Your task to perform on an android device: read, delete, or share a saved page in the chrome app Image 0: 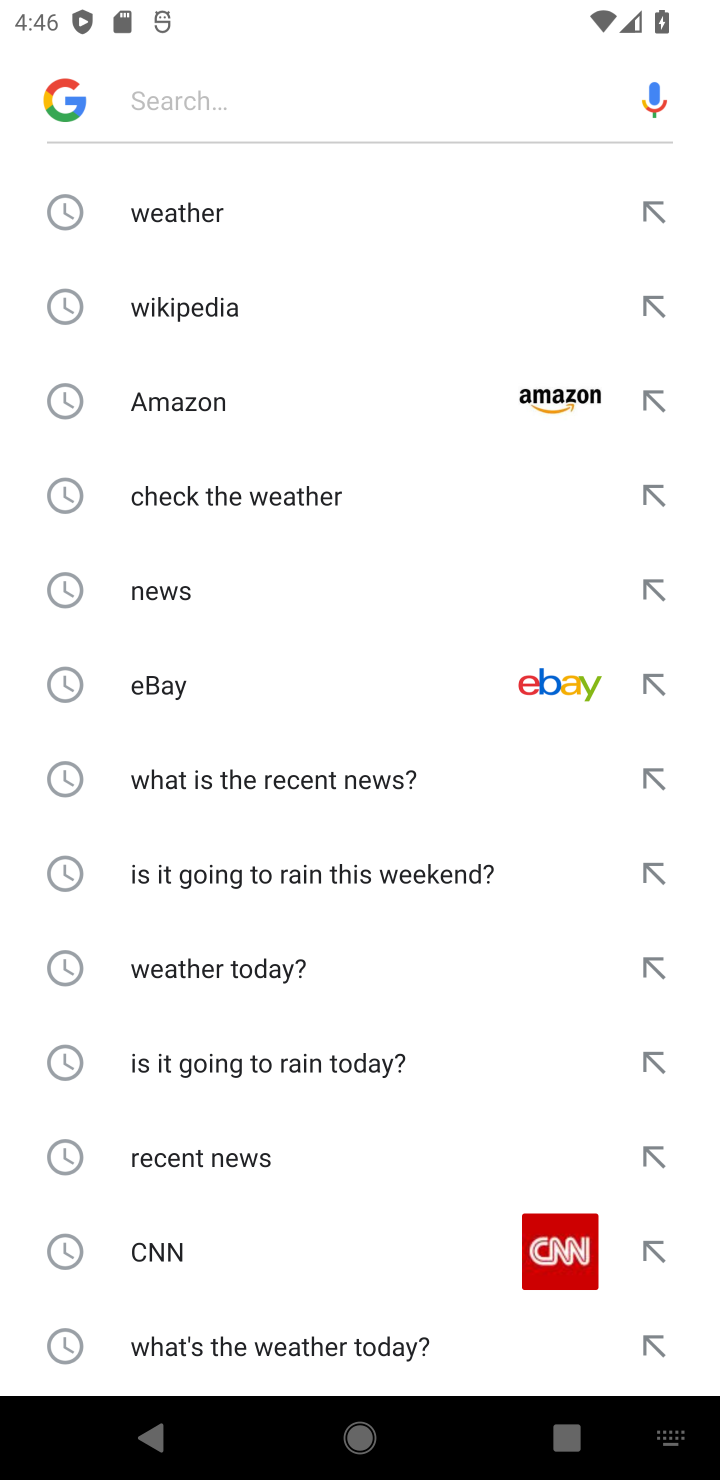
Step 0: press back button
Your task to perform on an android device: read, delete, or share a saved page in the chrome app Image 1: 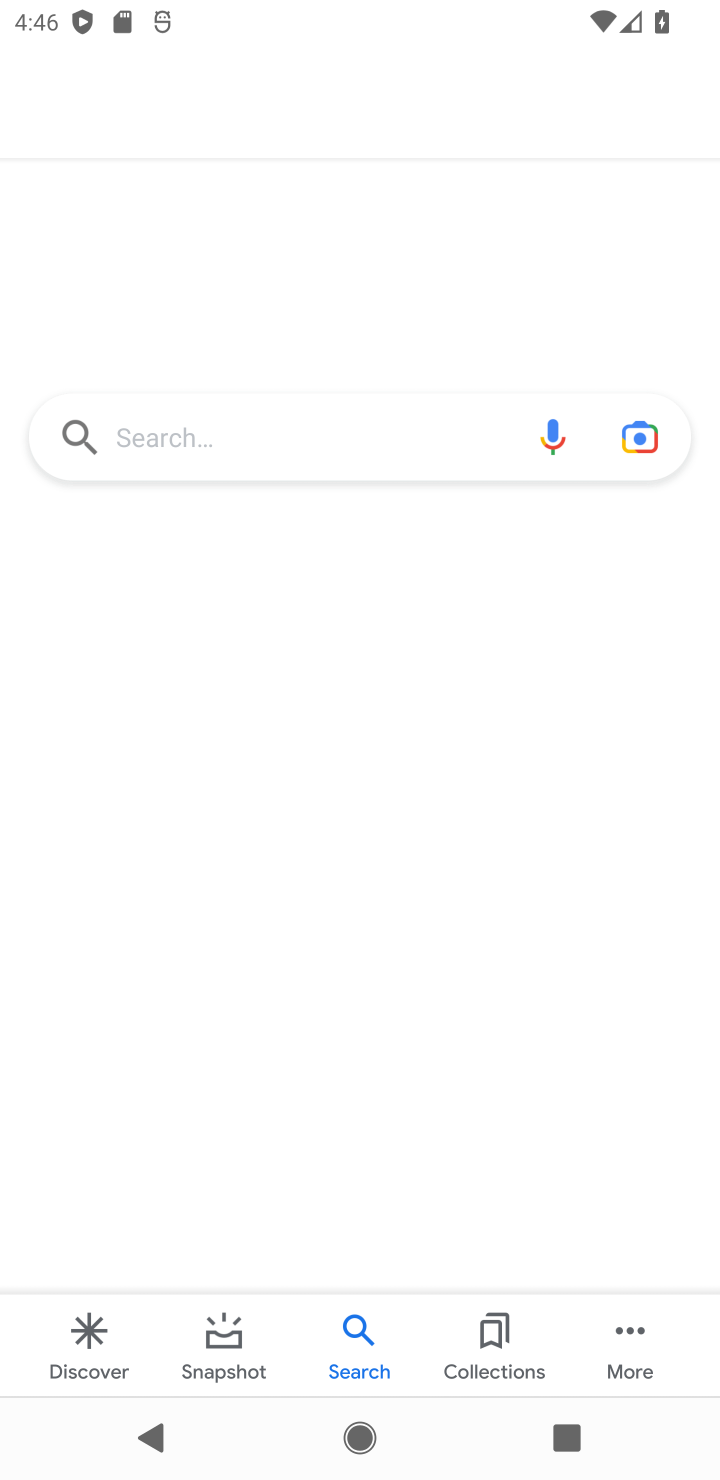
Step 1: drag from (576, 303) to (529, 922)
Your task to perform on an android device: read, delete, or share a saved page in the chrome app Image 2: 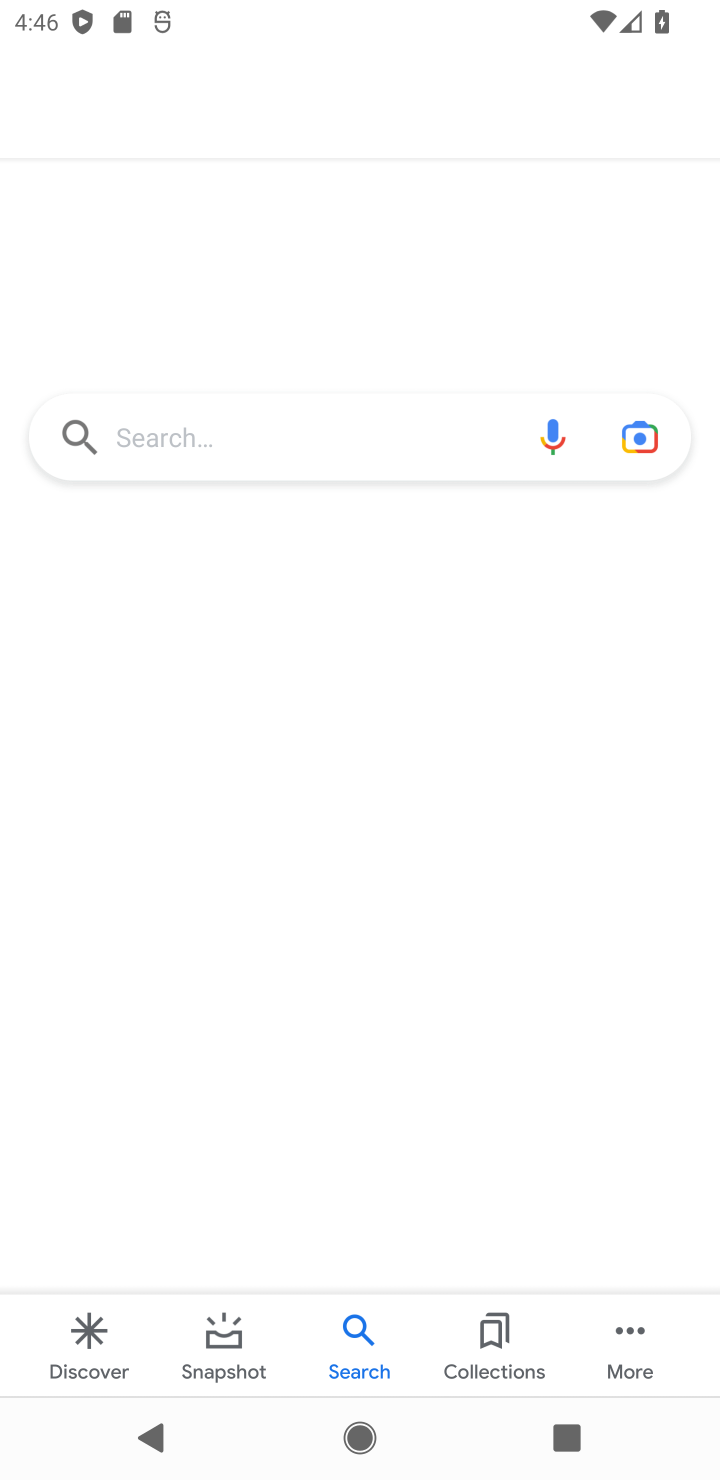
Step 2: press back button
Your task to perform on an android device: read, delete, or share a saved page in the chrome app Image 3: 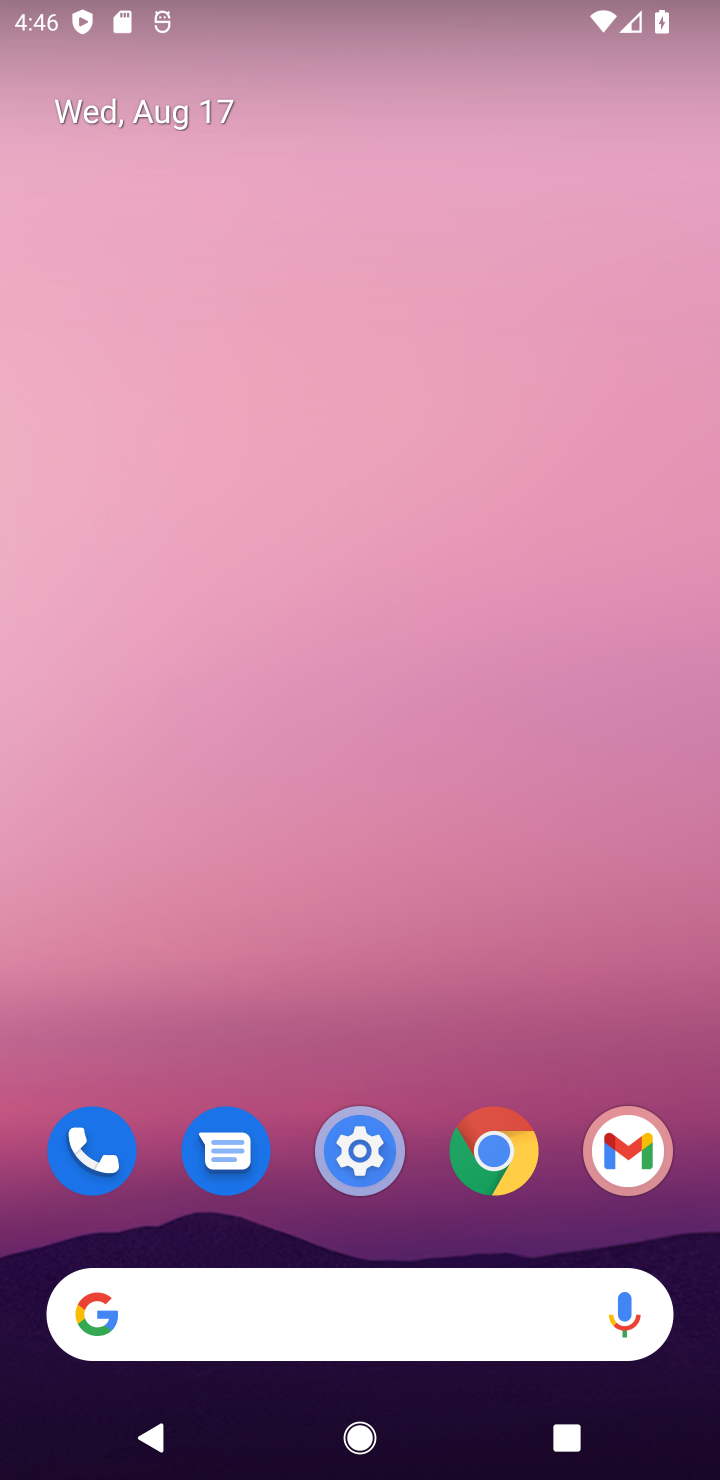
Step 3: click (511, 1146)
Your task to perform on an android device: read, delete, or share a saved page in the chrome app Image 4: 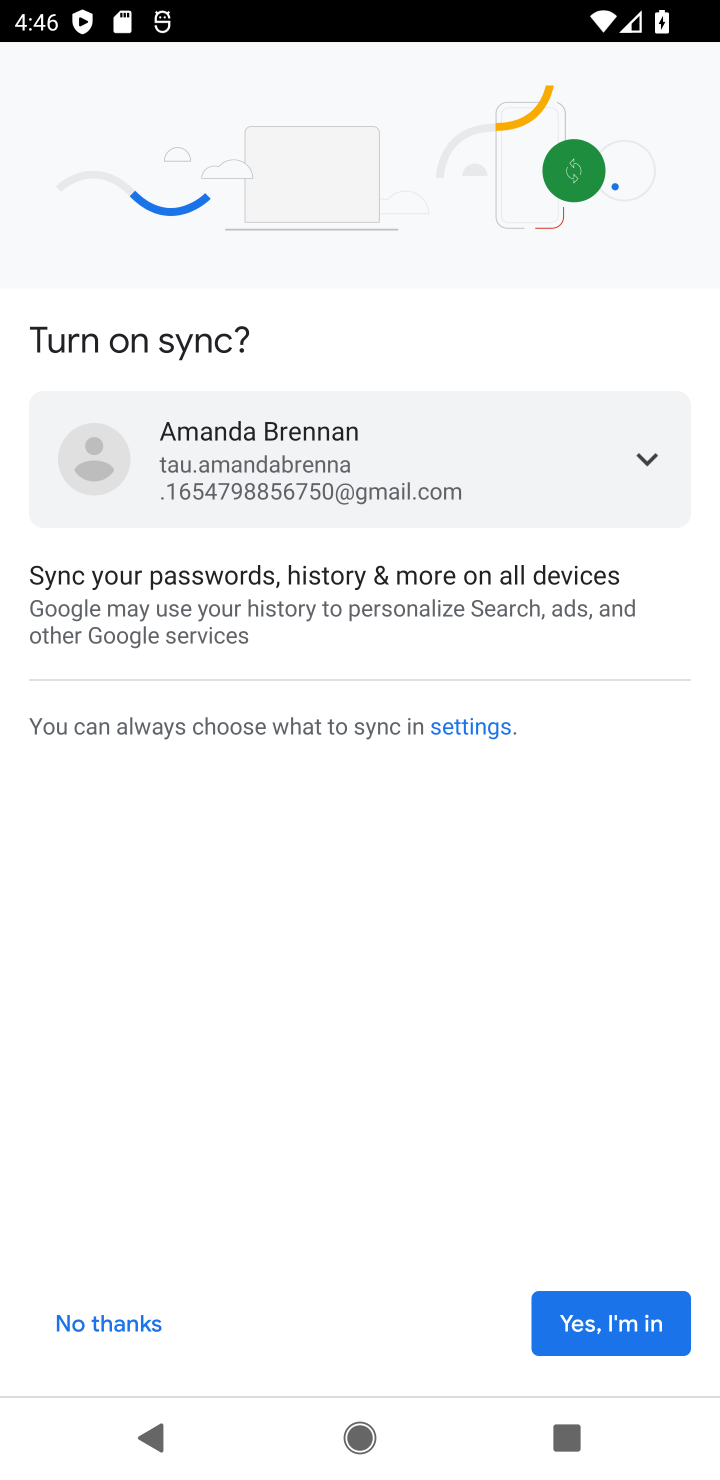
Step 4: click (603, 1293)
Your task to perform on an android device: read, delete, or share a saved page in the chrome app Image 5: 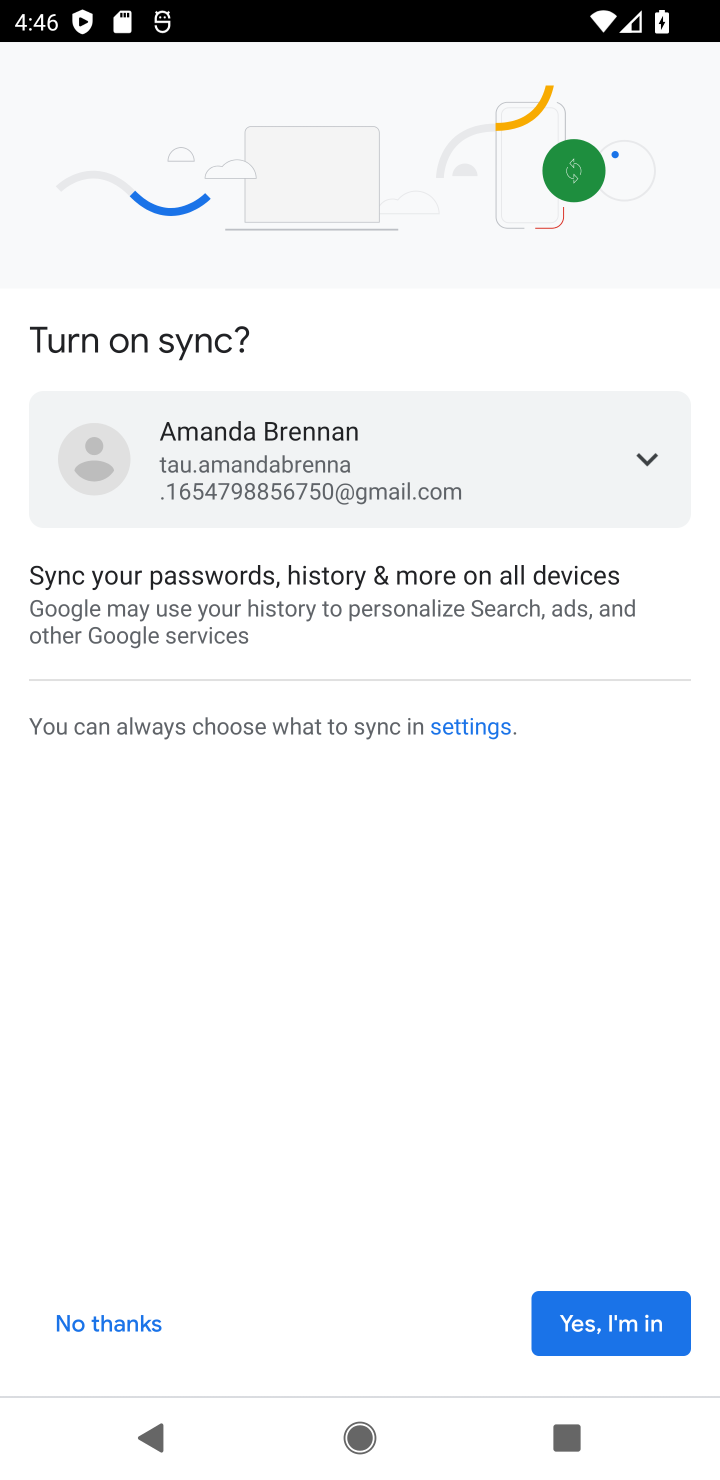
Step 5: click (582, 1313)
Your task to perform on an android device: read, delete, or share a saved page in the chrome app Image 6: 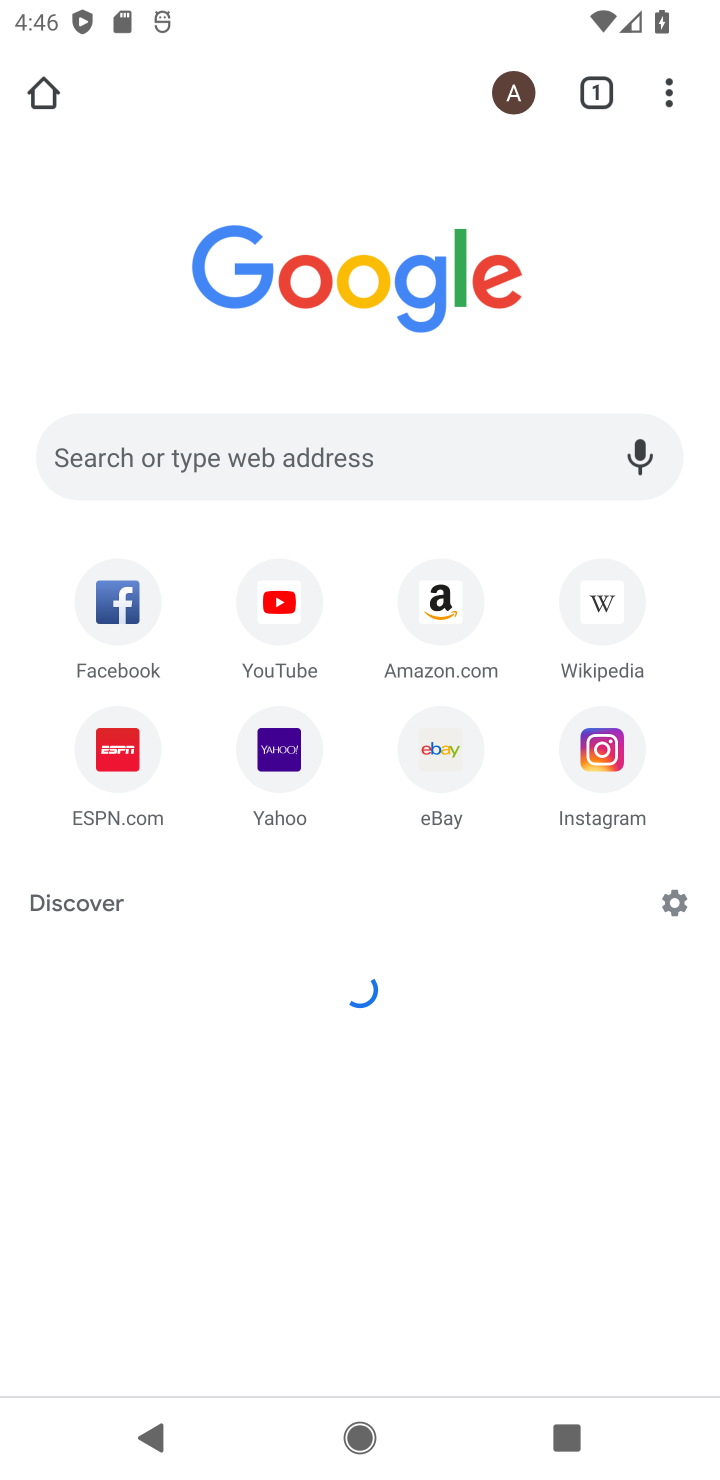
Step 6: click (661, 114)
Your task to perform on an android device: read, delete, or share a saved page in the chrome app Image 7: 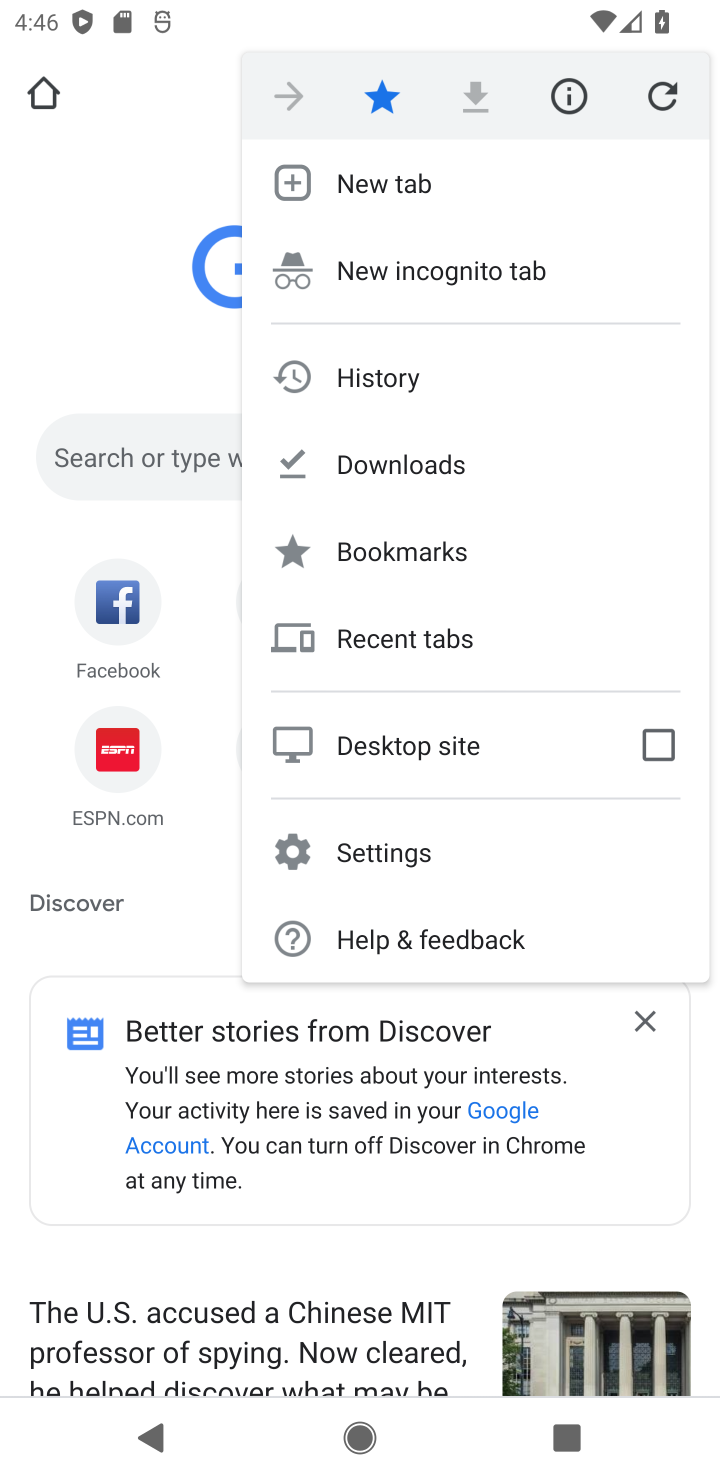
Step 7: click (447, 462)
Your task to perform on an android device: read, delete, or share a saved page in the chrome app Image 8: 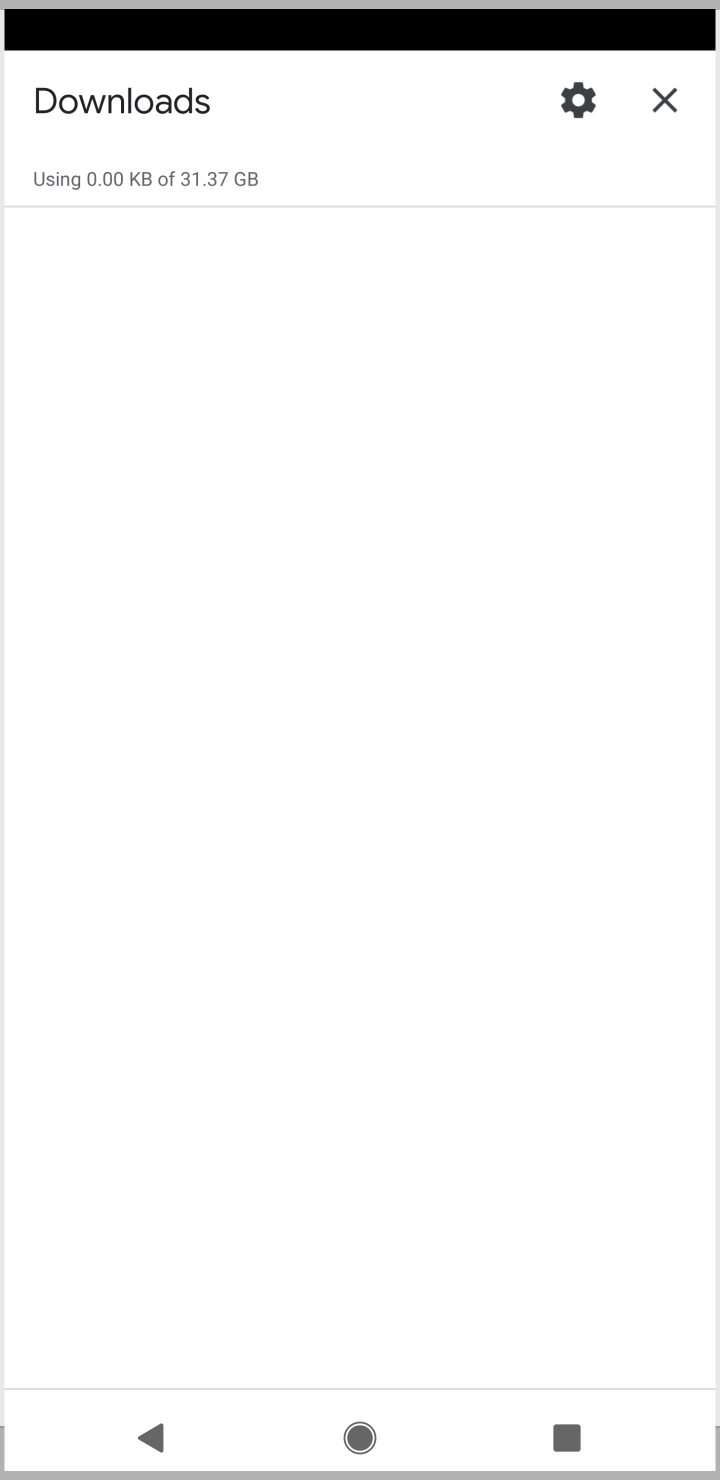
Step 8: task complete